Your task to perform on an android device: Do I have any events today? Image 0: 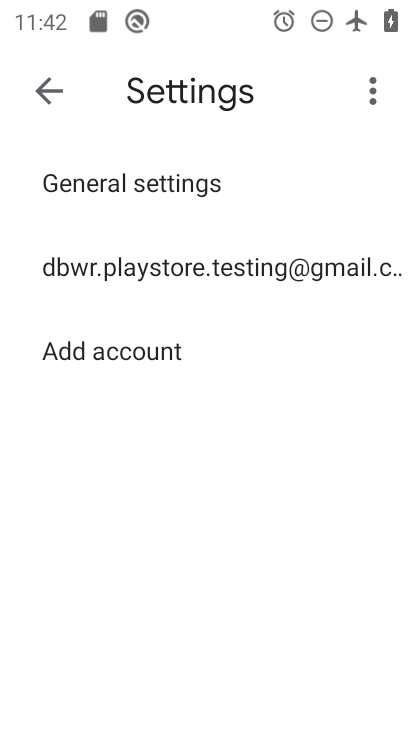
Step 0: press home button
Your task to perform on an android device: Do I have any events today? Image 1: 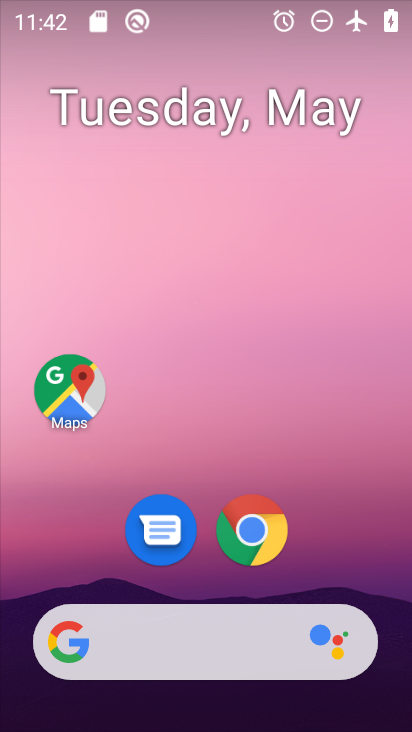
Step 1: drag from (337, 523) to (356, 34)
Your task to perform on an android device: Do I have any events today? Image 2: 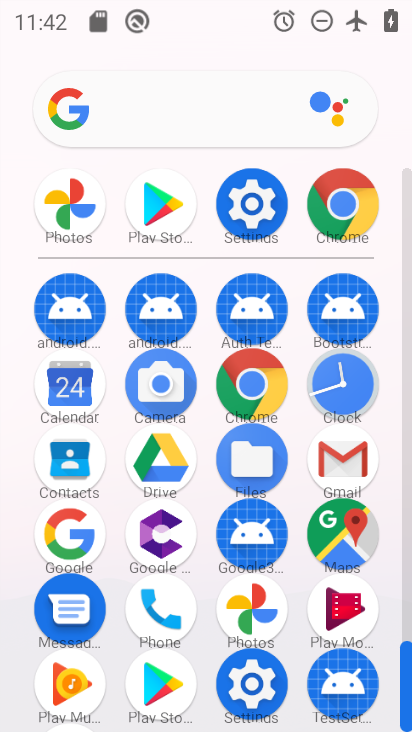
Step 2: click (59, 392)
Your task to perform on an android device: Do I have any events today? Image 3: 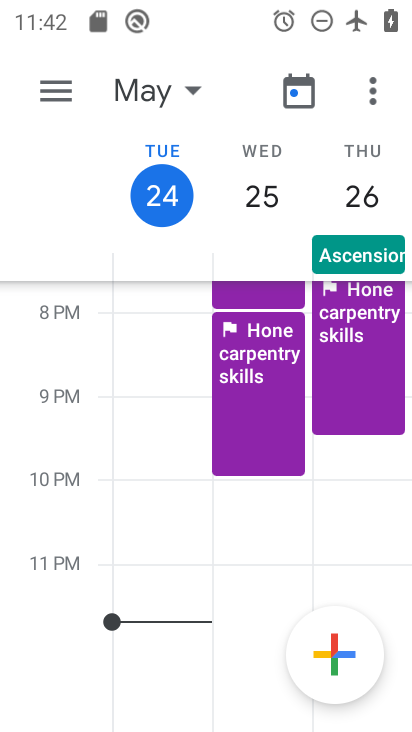
Step 3: task complete